Your task to perform on an android device: add a label to a message in the gmail app Image 0: 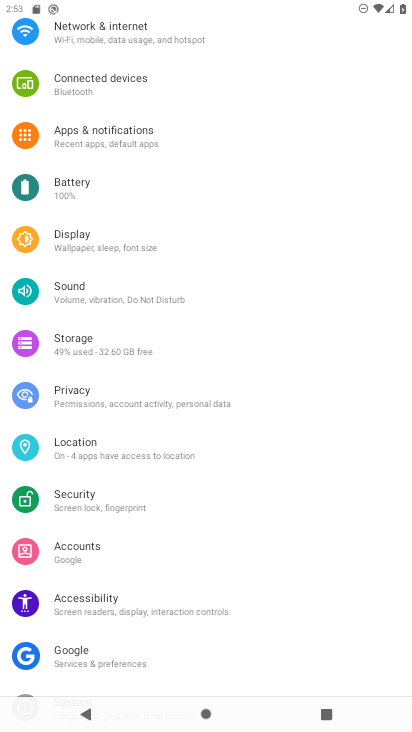
Step 0: press home button
Your task to perform on an android device: add a label to a message in the gmail app Image 1: 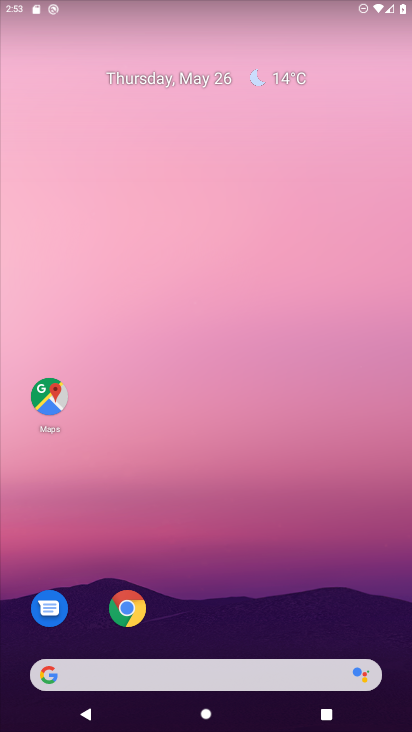
Step 1: drag from (274, 551) to (215, 178)
Your task to perform on an android device: add a label to a message in the gmail app Image 2: 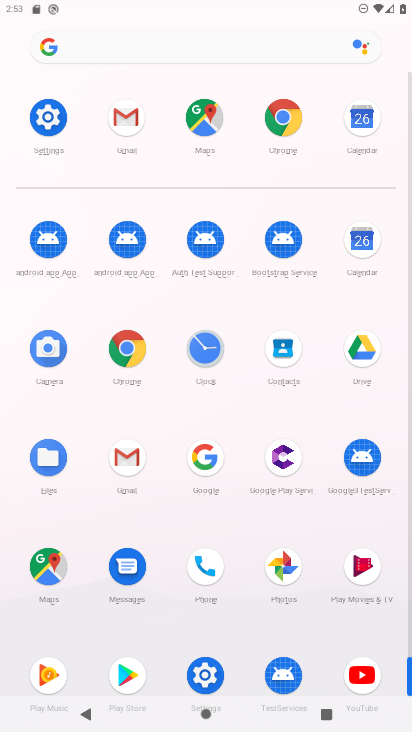
Step 2: click (116, 128)
Your task to perform on an android device: add a label to a message in the gmail app Image 3: 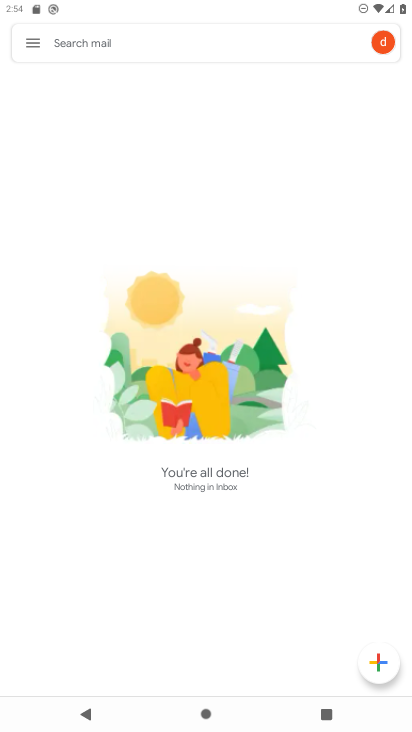
Step 3: task complete